Your task to perform on an android device: Search for dining room chairs on Crate & Barrel Image 0: 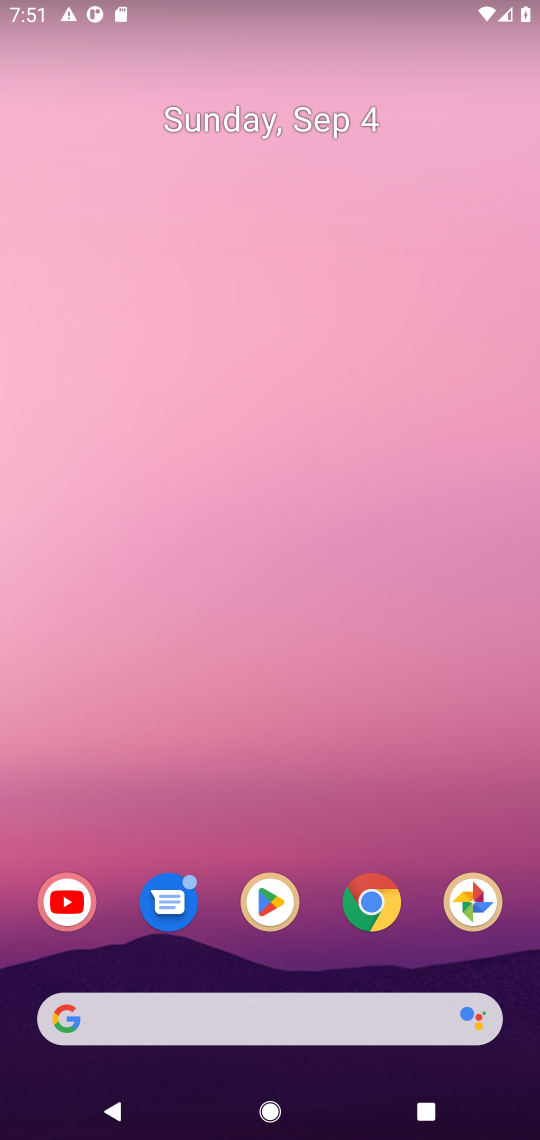
Step 0: click (61, 912)
Your task to perform on an android device: Search for dining room chairs on Crate & Barrel Image 1: 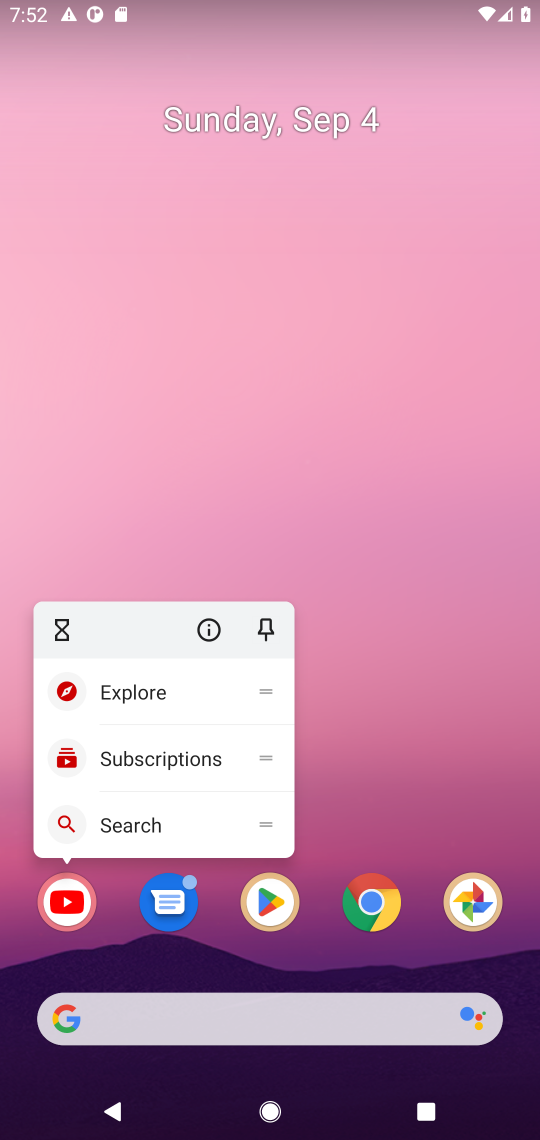
Step 1: click (61, 912)
Your task to perform on an android device: Search for dining room chairs on Crate & Barrel Image 2: 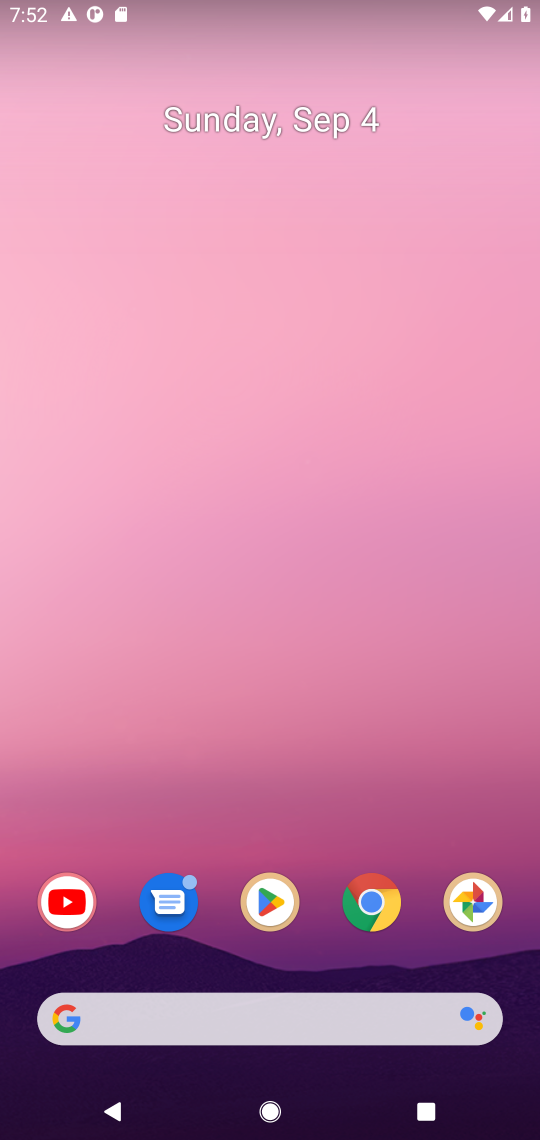
Step 2: click (61, 912)
Your task to perform on an android device: Search for dining room chairs on Crate & Barrel Image 3: 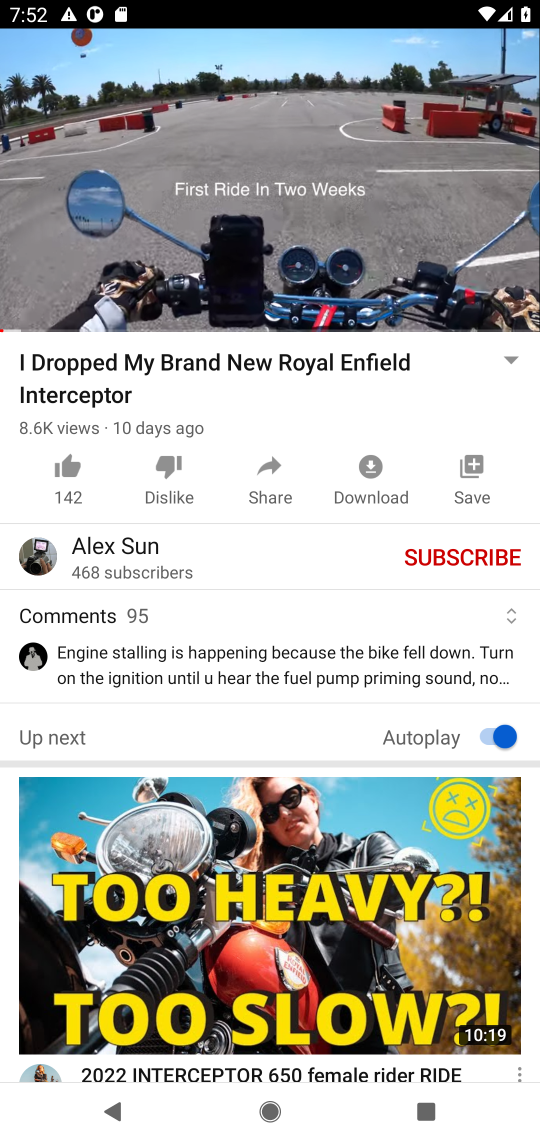
Step 3: task complete